Your task to perform on an android device: check android version Image 0: 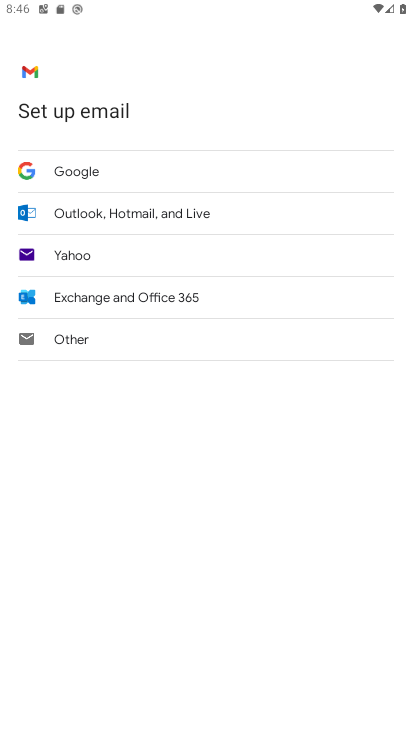
Step 0: press home button
Your task to perform on an android device: check android version Image 1: 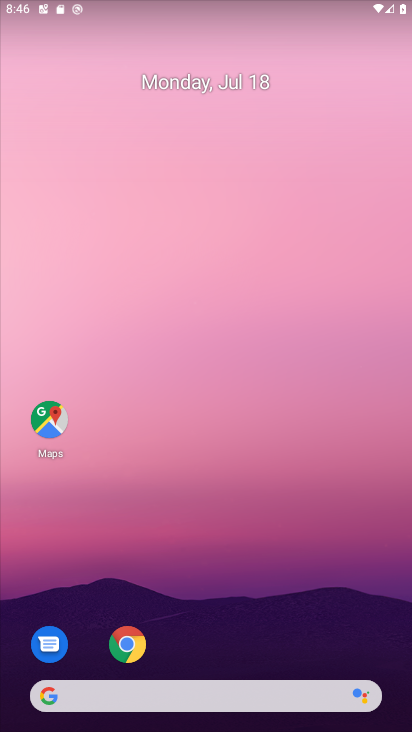
Step 1: drag from (286, 616) to (270, 131)
Your task to perform on an android device: check android version Image 2: 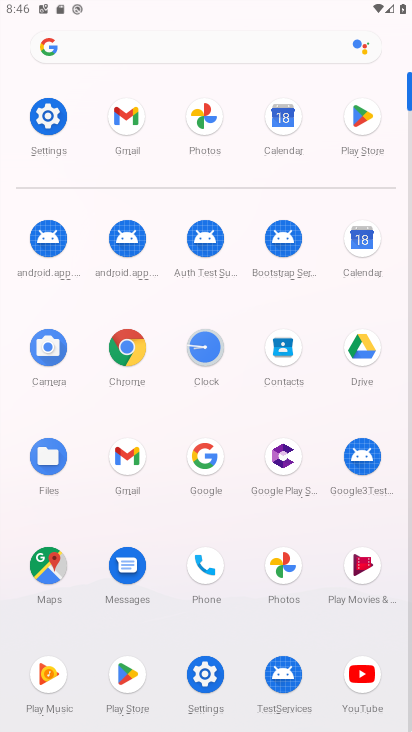
Step 2: click (64, 116)
Your task to perform on an android device: check android version Image 3: 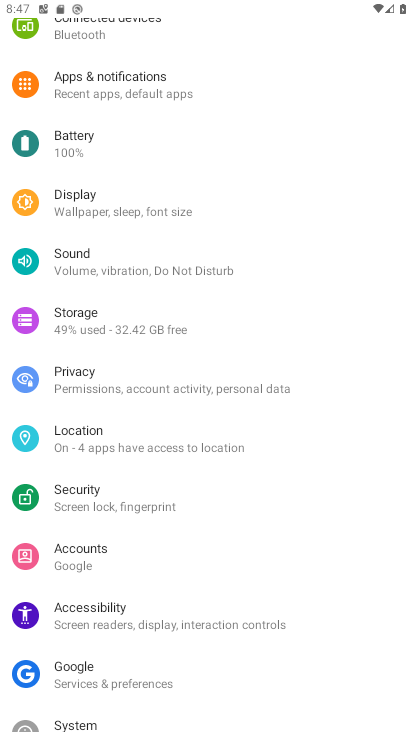
Step 3: drag from (85, 551) to (85, 229)
Your task to perform on an android device: check android version Image 4: 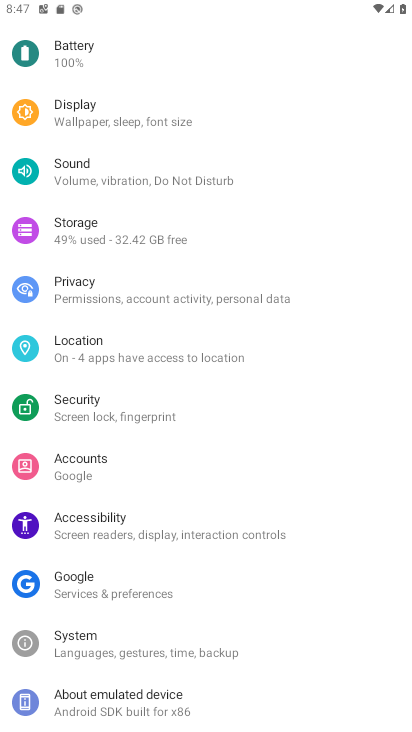
Step 4: click (102, 699)
Your task to perform on an android device: check android version Image 5: 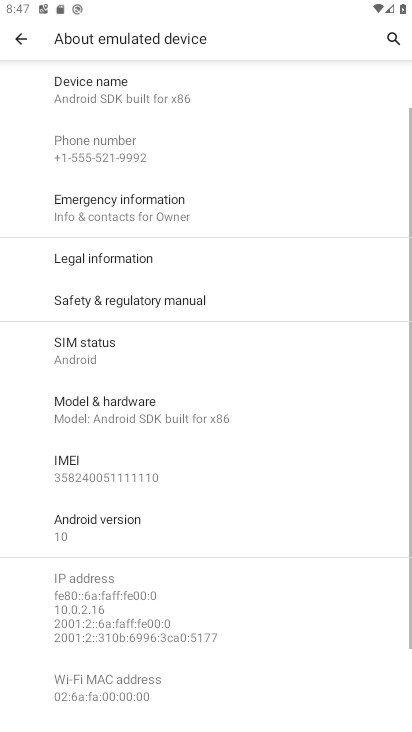
Step 5: task complete